Your task to perform on an android device: Open Amazon Image 0: 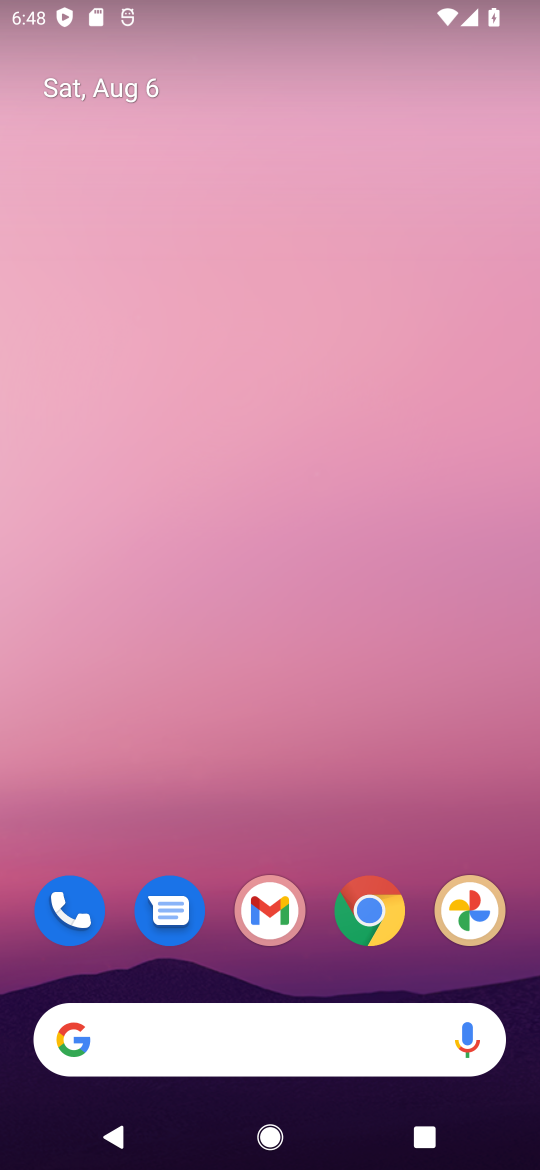
Step 0: click (374, 914)
Your task to perform on an android device: Open Amazon Image 1: 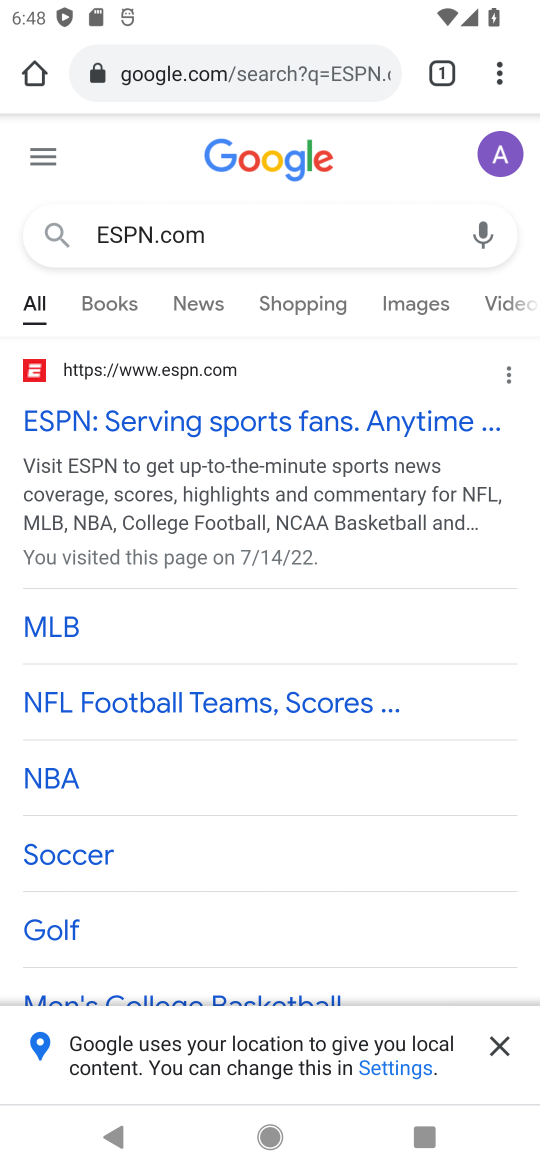
Step 1: click (364, 60)
Your task to perform on an android device: Open Amazon Image 2: 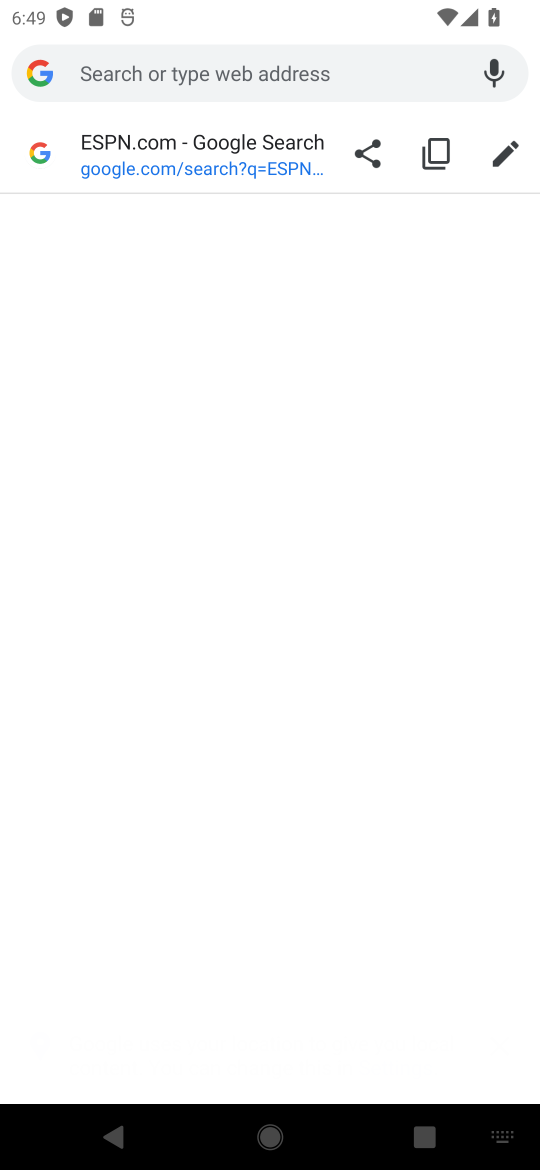
Step 2: type "Amazon"
Your task to perform on an android device: Open Amazon Image 3: 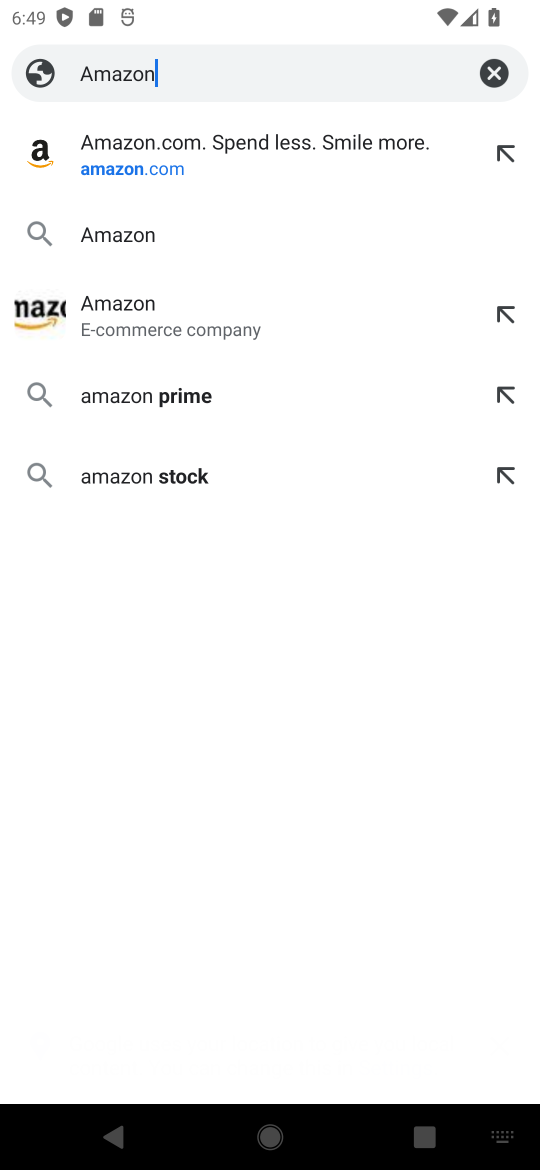
Step 3: click (126, 152)
Your task to perform on an android device: Open Amazon Image 4: 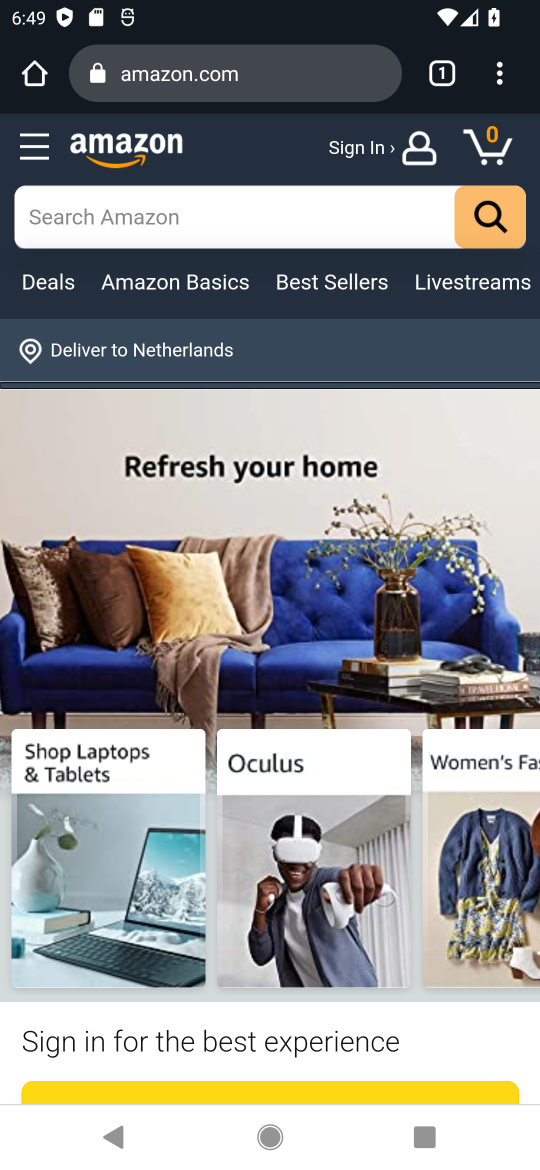
Step 4: task complete